Your task to perform on an android device: Clear the shopping cart on newegg. Add "bose soundlink" to the cart on newegg, then select checkout. Image 0: 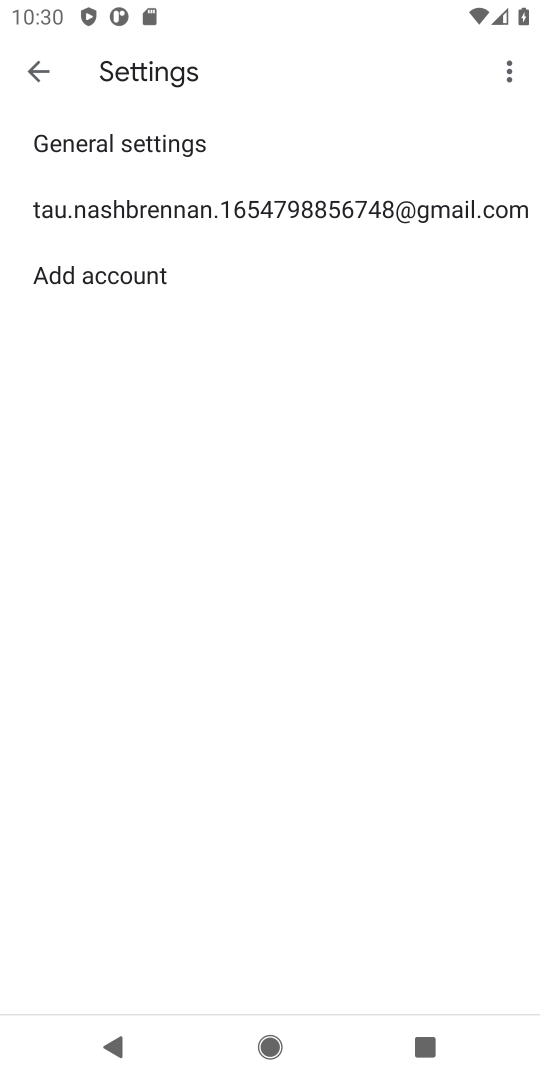
Step 0: press home button
Your task to perform on an android device: Clear the shopping cart on newegg. Add "bose soundlink" to the cart on newegg, then select checkout. Image 1: 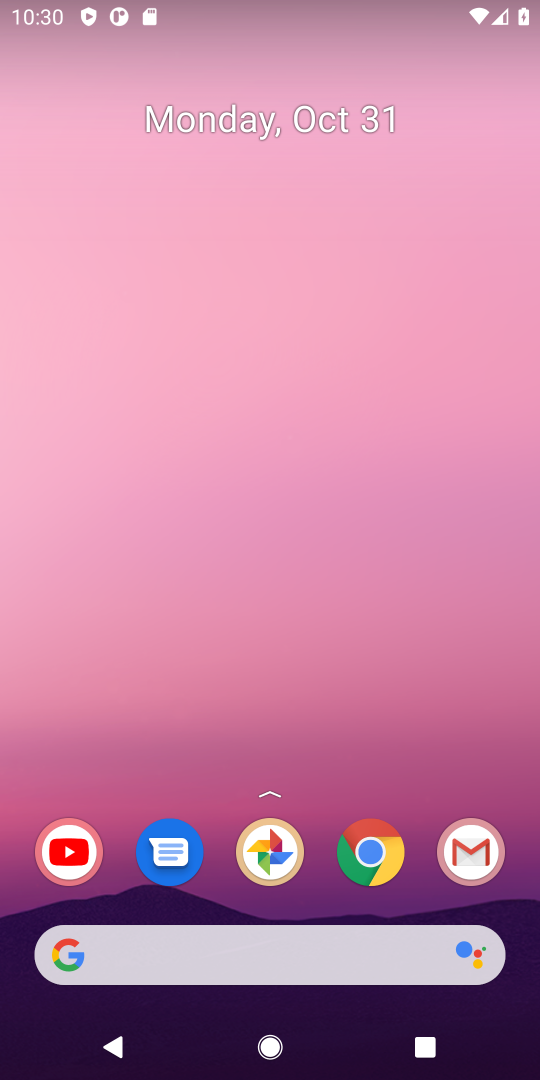
Step 1: drag from (230, 844) to (378, 137)
Your task to perform on an android device: Clear the shopping cart on newegg. Add "bose soundlink" to the cart on newegg, then select checkout. Image 2: 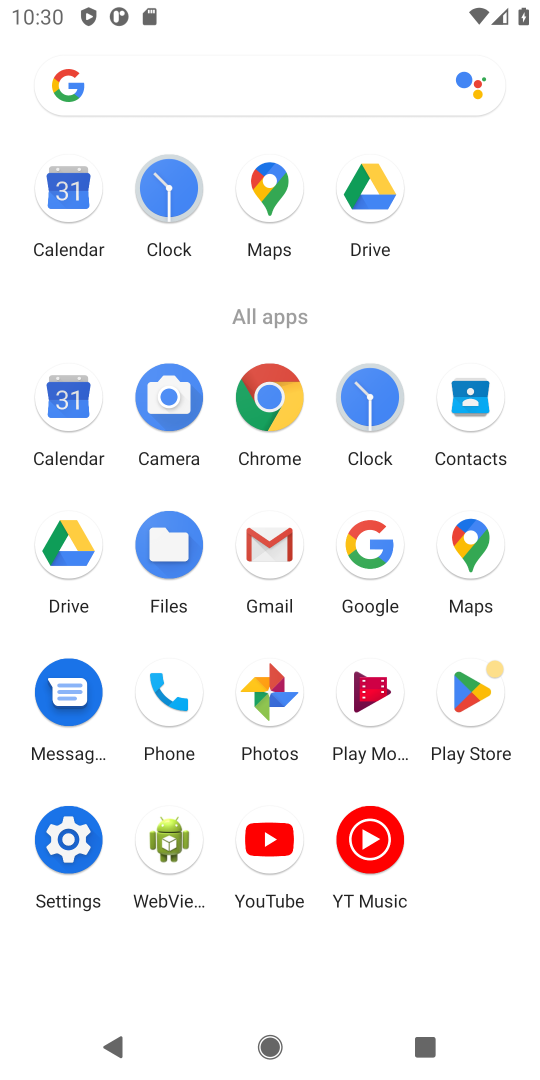
Step 2: click (271, 398)
Your task to perform on an android device: Clear the shopping cart on newegg. Add "bose soundlink" to the cart on newegg, then select checkout. Image 3: 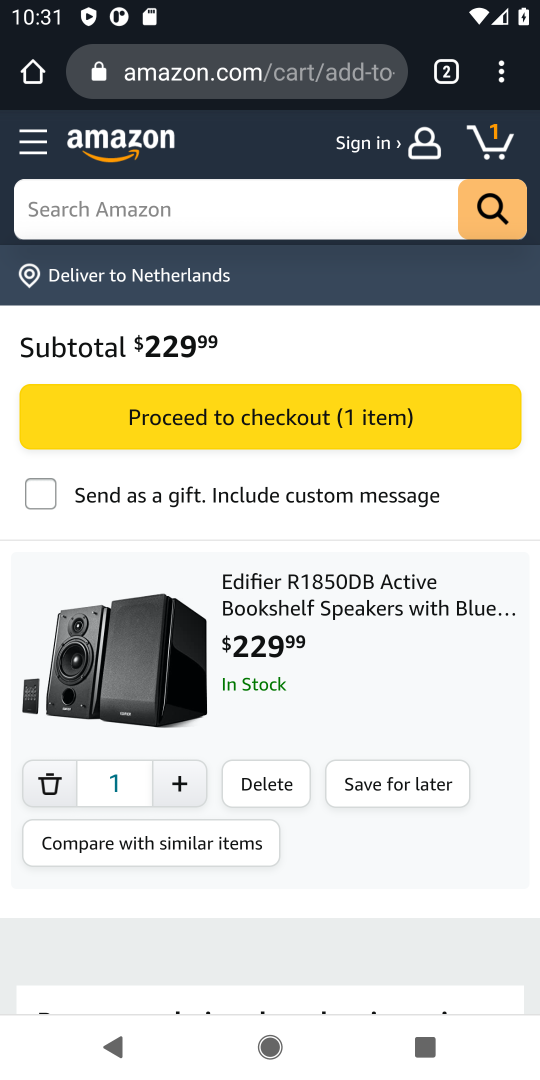
Step 3: click (173, 74)
Your task to perform on an android device: Clear the shopping cart on newegg. Add "bose soundlink" to the cart on newegg, then select checkout. Image 4: 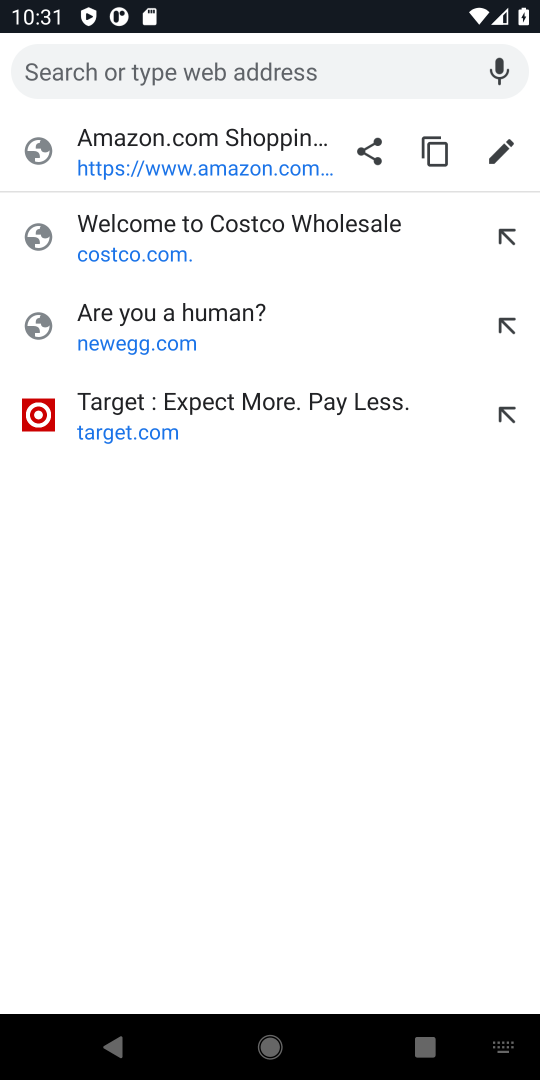
Step 4: type "newegg"
Your task to perform on an android device: Clear the shopping cart on newegg. Add "bose soundlink" to the cart on newegg, then select checkout. Image 5: 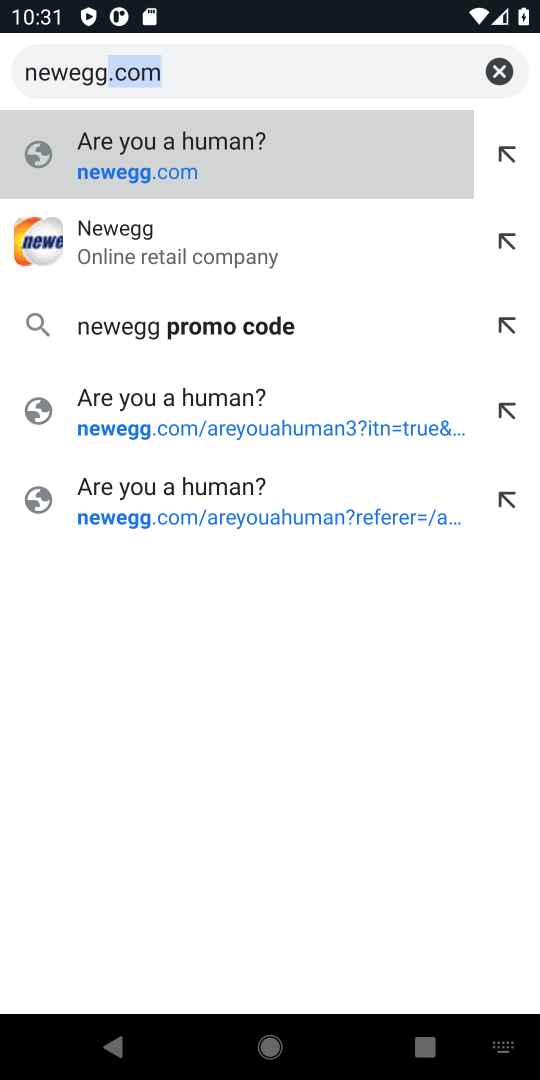
Step 5: press enter
Your task to perform on an android device: Clear the shopping cart on newegg. Add "bose soundlink" to the cart on newegg, then select checkout. Image 6: 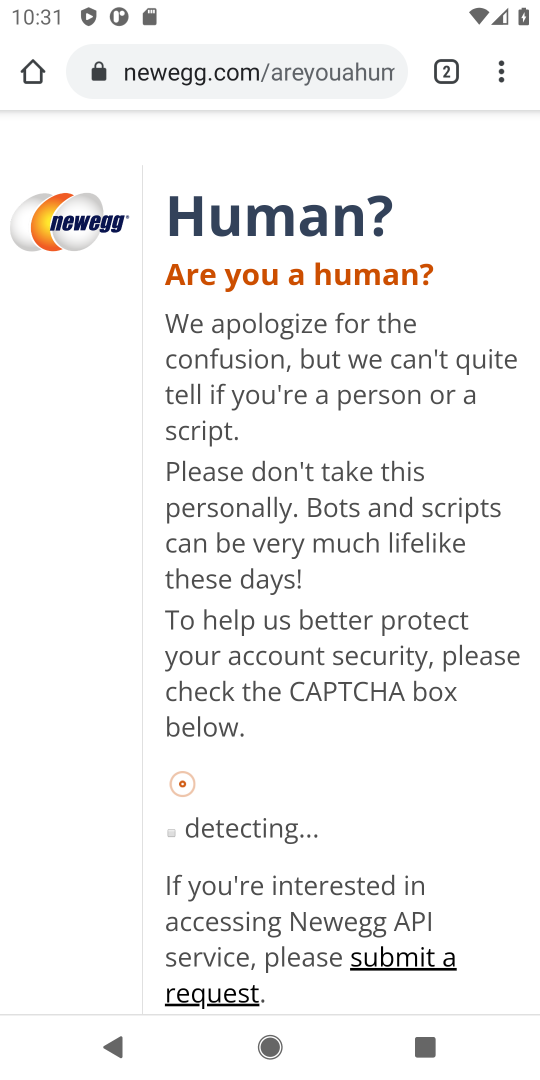
Step 6: click (87, 245)
Your task to perform on an android device: Clear the shopping cart on newegg. Add "bose soundlink" to the cart on newegg, then select checkout. Image 7: 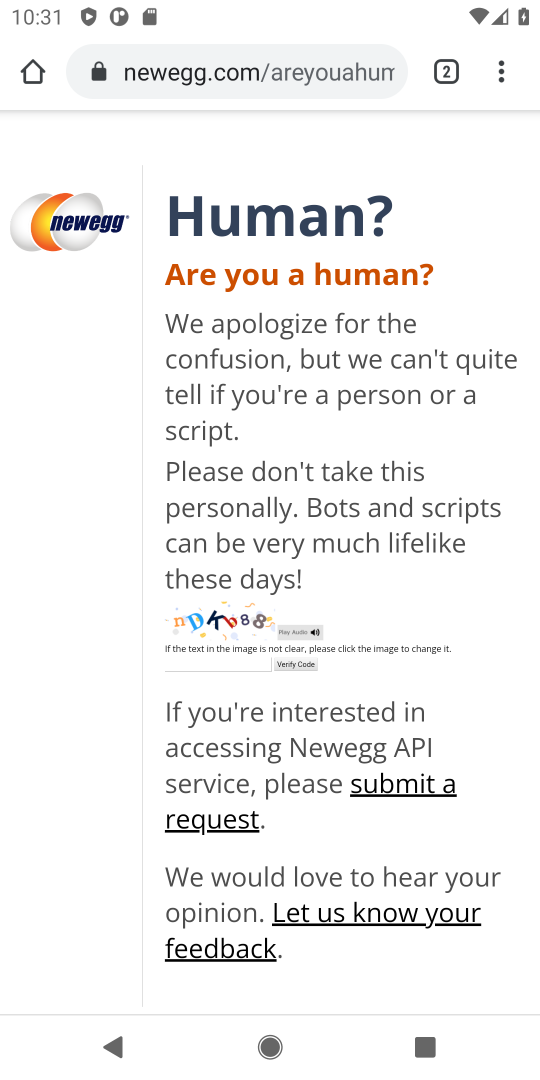
Step 7: task complete